Your task to perform on an android device: Open location settings Image 0: 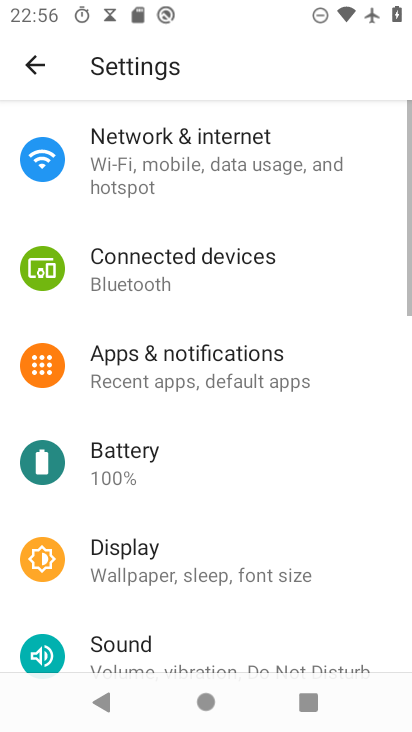
Step 0: press home button
Your task to perform on an android device: Open location settings Image 1: 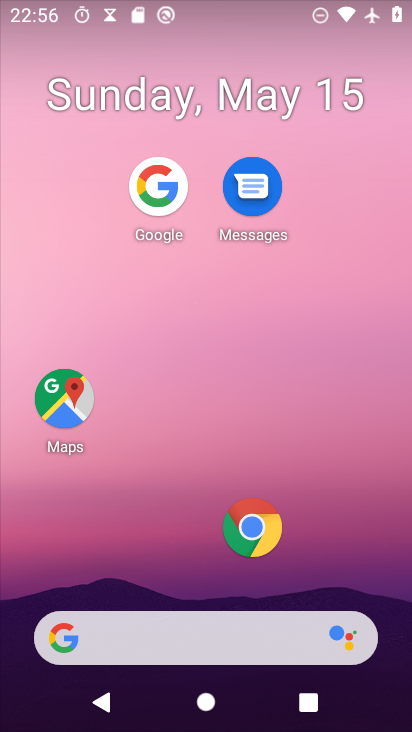
Step 1: drag from (169, 629) to (313, 145)
Your task to perform on an android device: Open location settings Image 2: 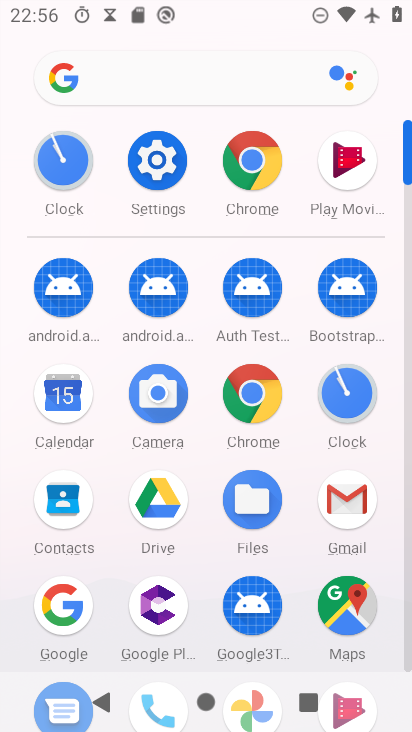
Step 2: click (172, 165)
Your task to perform on an android device: Open location settings Image 3: 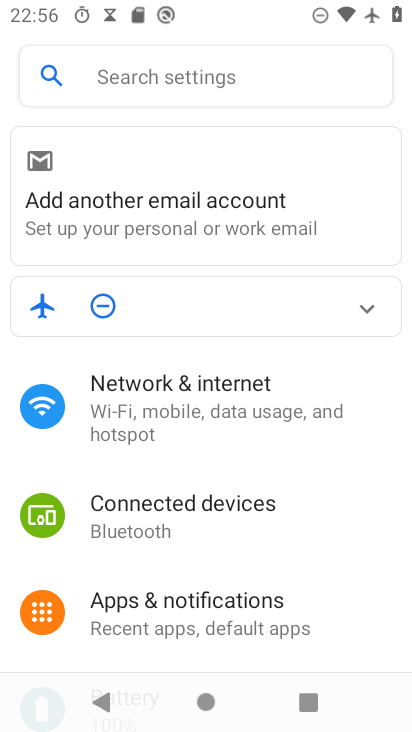
Step 3: drag from (275, 346) to (358, 94)
Your task to perform on an android device: Open location settings Image 4: 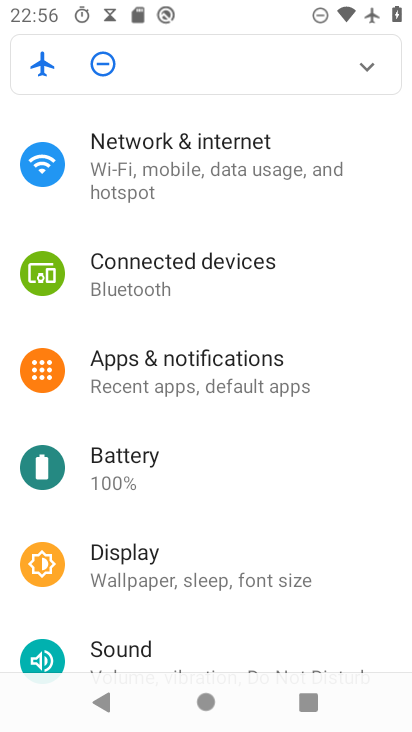
Step 4: drag from (224, 524) to (319, 106)
Your task to perform on an android device: Open location settings Image 5: 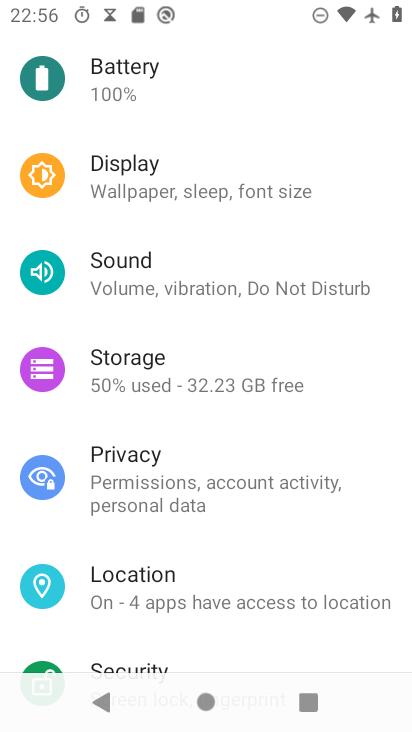
Step 5: click (170, 584)
Your task to perform on an android device: Open location settings Image 6: 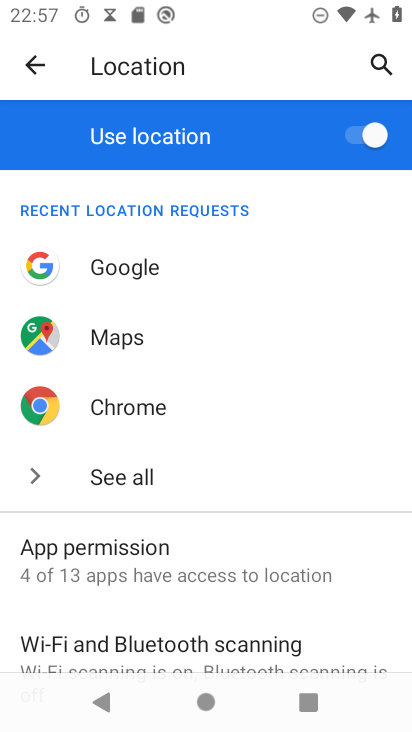
Step 6: task complete